Your task to perform on an android device: choose inbox layout in the gmail app Image 0: 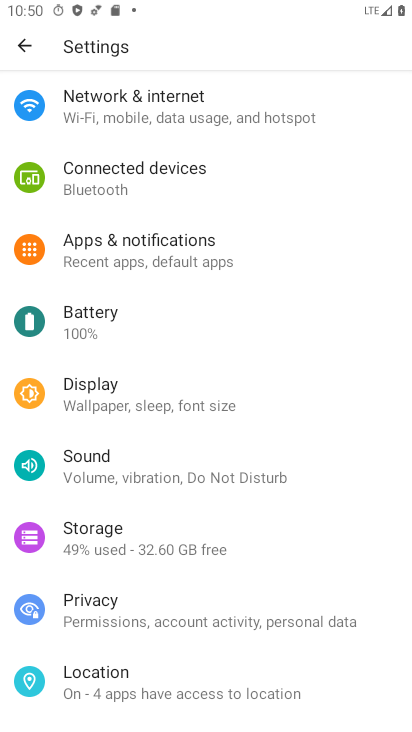
Step 0: press home button
Your task to perform on an android device: choose inbox layout in the gmail app Image 1: 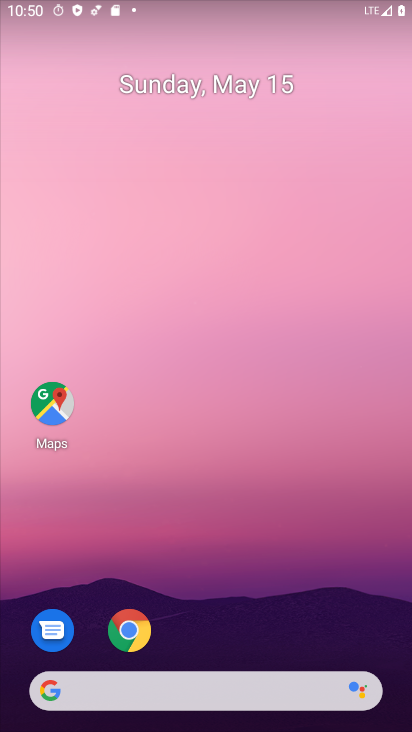
Step 1: drag from (176, 626) to (251, 98)
Your task to perform on an android device: choose inbox layout in the gmail app Image 2: 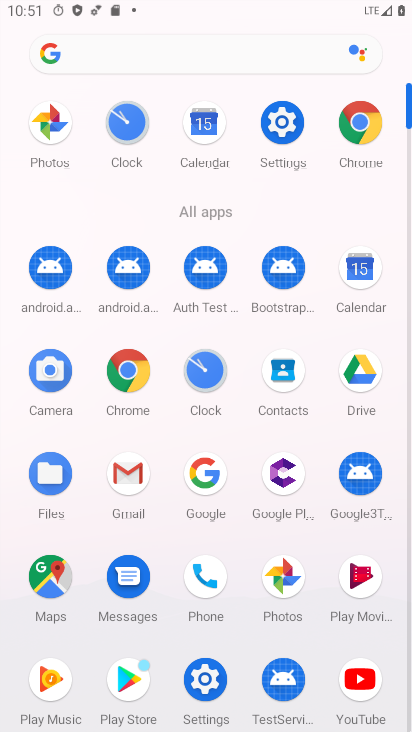
Step 2: click (136, 475)
Your task to perform on an android device: choose inbox layout in the gmail app Image 3: 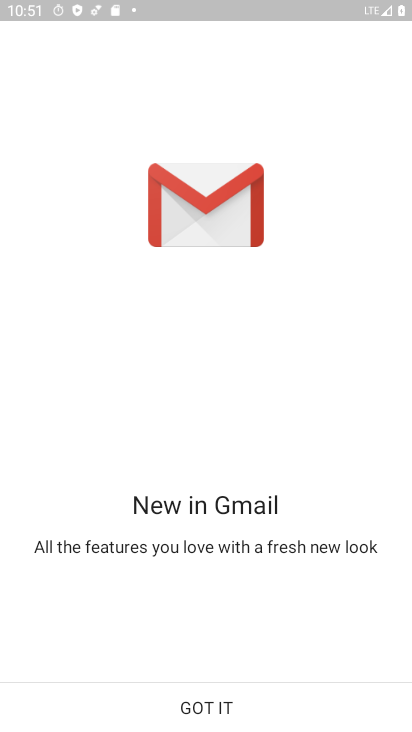
Step 3: click (215, 703)
Your task to perform on an android device: choose inbox layout in the gmail app Image 4: 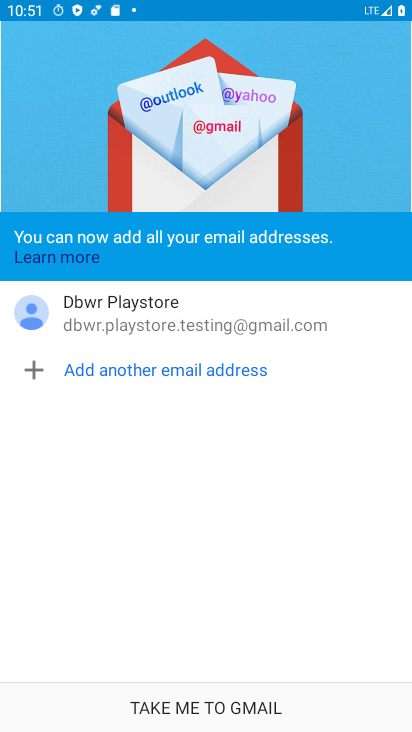
Step 4: click (216, 698)
Your task to perform on an android device: choose inbox layout in the gmail app Image 5: 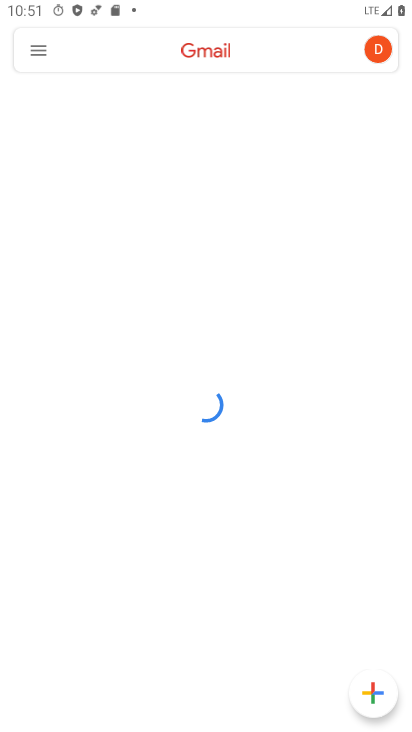
Step 5: click (37, 28)
Your task to perform on an android device: choose inbox layout in the gmail app Image 6: 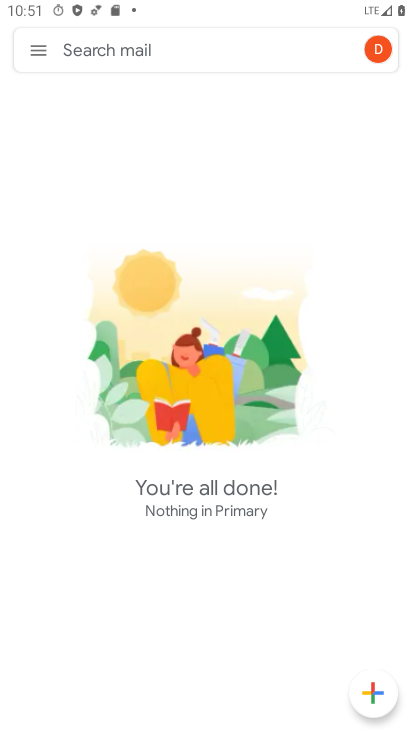
Step 6: click (45, 43)
Your task to perform on an android device: choose inbox layout in the gmail app Image 7: 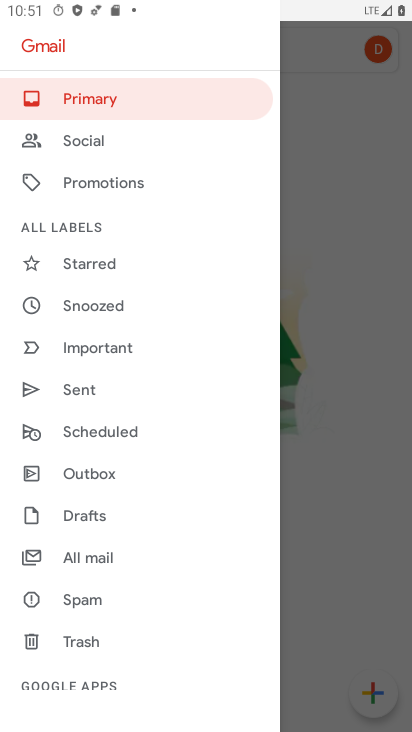
Step 7: drag from (72, 626) to (93, 117)
Your task to perform on an android device: choose inbox layout in the gmail app Image 8: 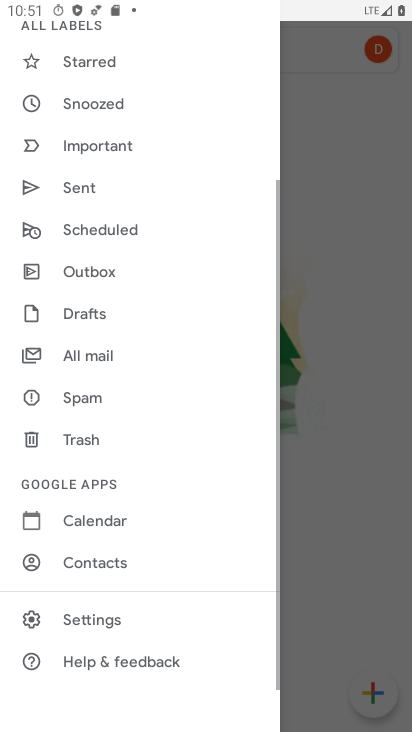
Step 8: click (65, 621)
Your task to perform on an android device: choose inbox layout in the gmail app Image 9: 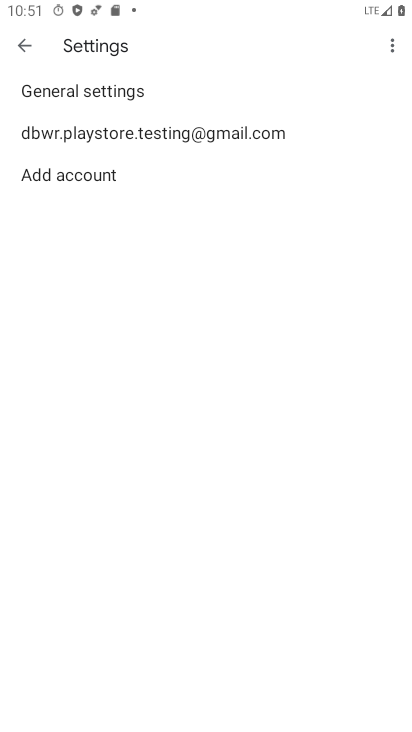
Step 9: click (83, 129)
Your task to perform on an android device: choose inbox layout in the gmail app Image 10: 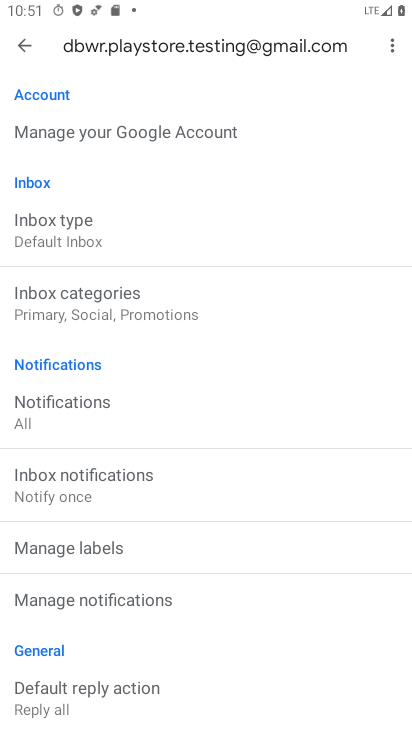
Step 10: click (81, 206)
Your task to perform on an android device: choose inbox layout in the gmail app Image 11: 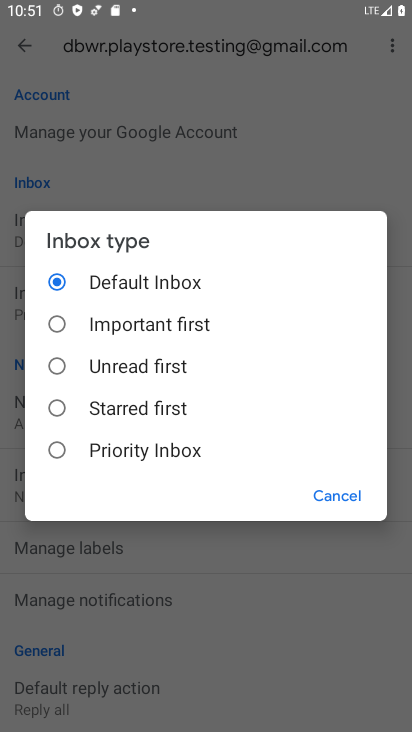
Step 11: click (61, 325)
Your task to perform on an android device: choose inbox layout in the gmail app Image 12: 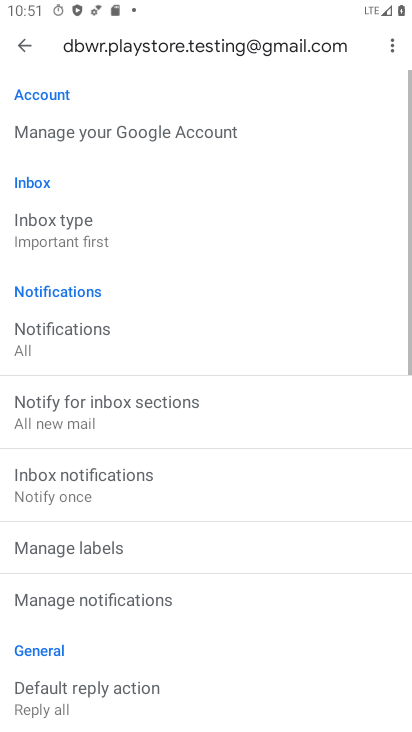
Step 12: task complete